Your task to perform on an android device: check battery use Image 0: 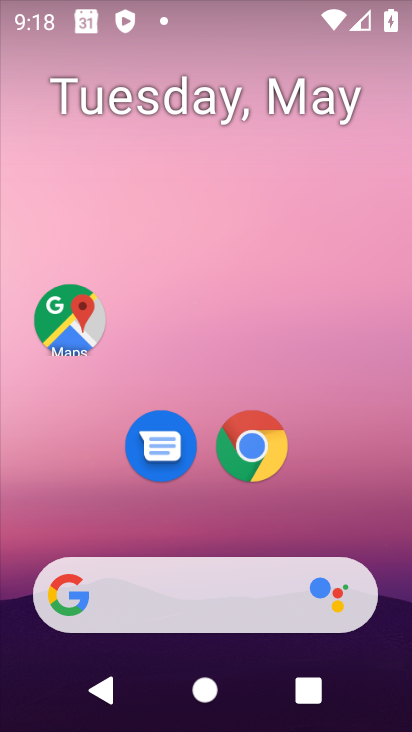
Step 0: drag from (213, 478) to (191, 151)
Your task to perform on an android device: check battery use Image 1: 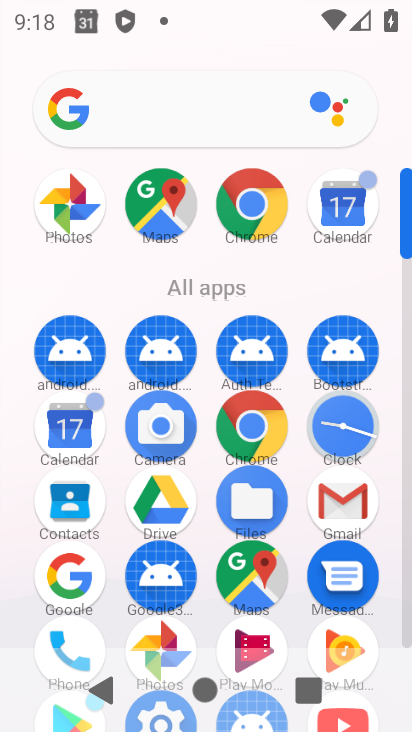
Step 1: drag from (203, 626) to (215, 414)
Your task to perform on an android device: check battery use Image 2: 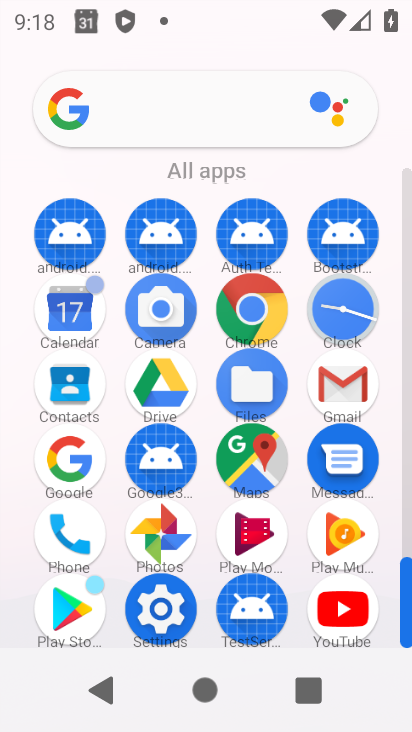
Step 2: click (164, 609)
Your task to perform on an android device: check battery use Image 3: 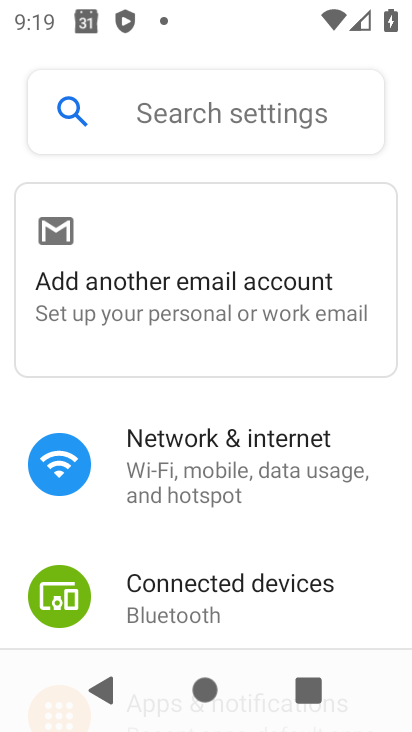
Step 3: drag from (243, 491) to (289, 156)
Your task to perform on an android device: check battery use Image 4: 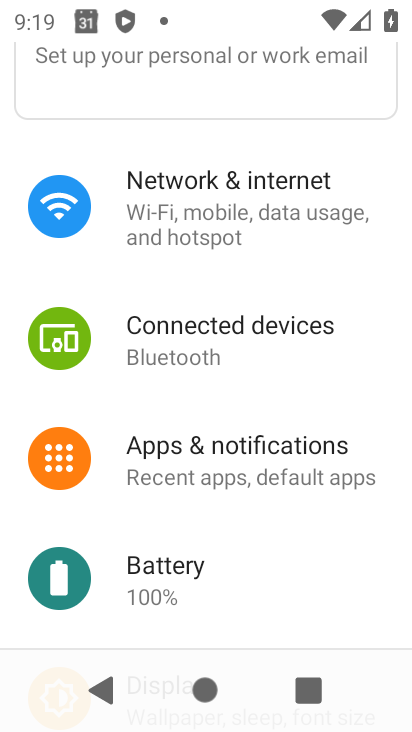
Step 4: click (176, 580)
Your task to perform on an android device: check battery use Image 5: 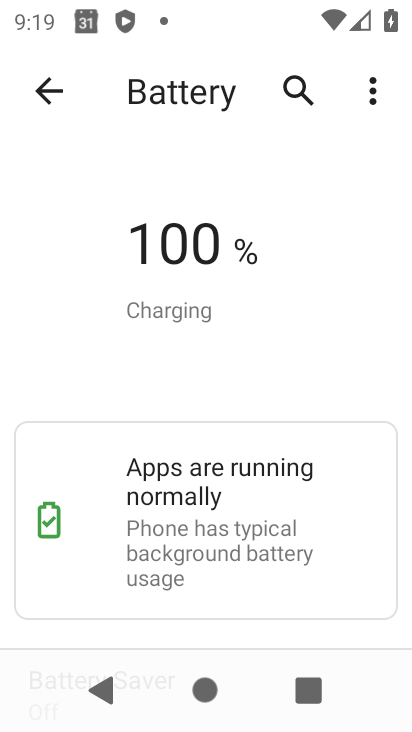
Step 5: task complete